Your task to perform on an android device: turn off airplane mode Image 0: 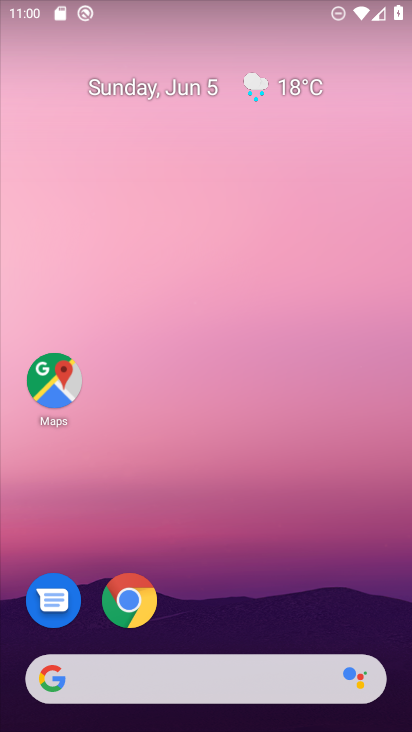
Step 0: drag from (359, 13) to (226, 565)
Your task to perform on an android device: turn off airplane mode Image 1: 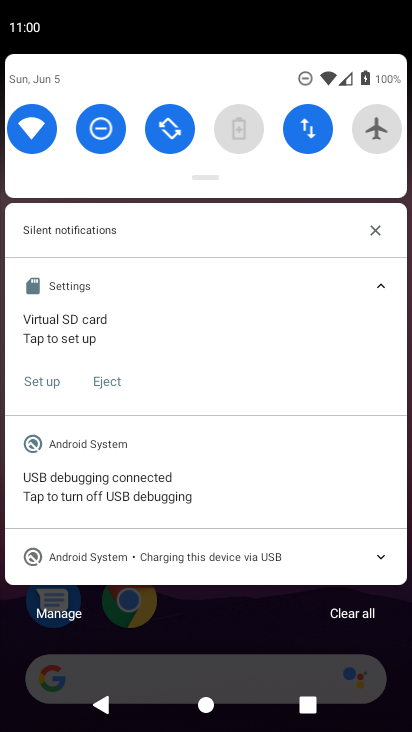
Step 1: task complete